Your task to perform on an android device: Open Chrome and go to settings Image 0: 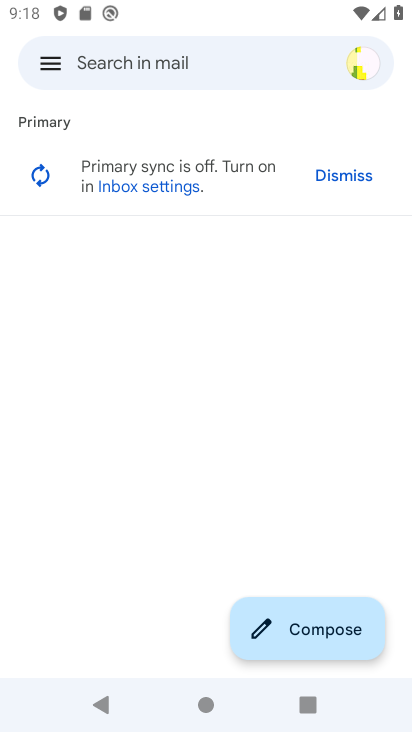
Step 0: press home button
Your task to perform on an android device: Open Chrome and go to settings Image 1: 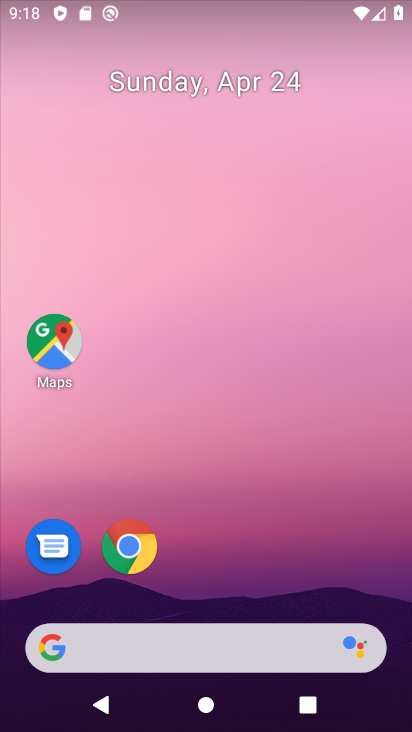
Step 1: click (131, 570)
Your task to perform on an android device: Open Chrome and go to settings Image 2: 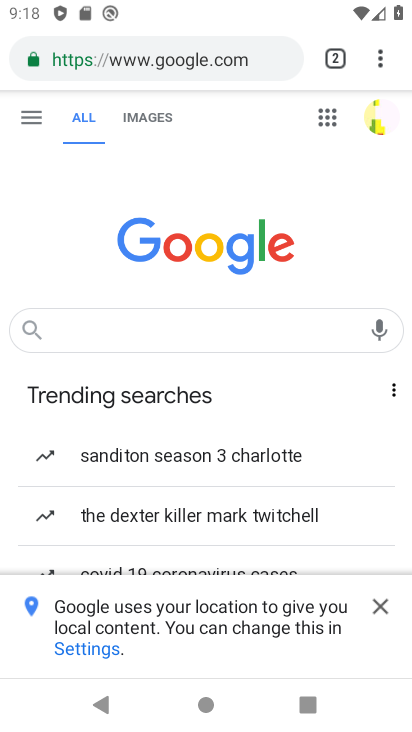
Step 2: click (372, 73)
Your task to perform on an android device: Open Chrome and go to settings Image 3: 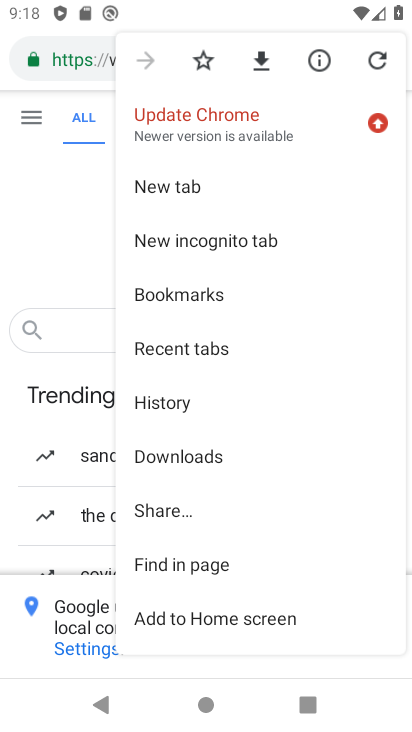
Step 3: drag from (246, 554) to (280, 169)
Your task to perform on an android device: Open Chrome and go to settings Image 4: 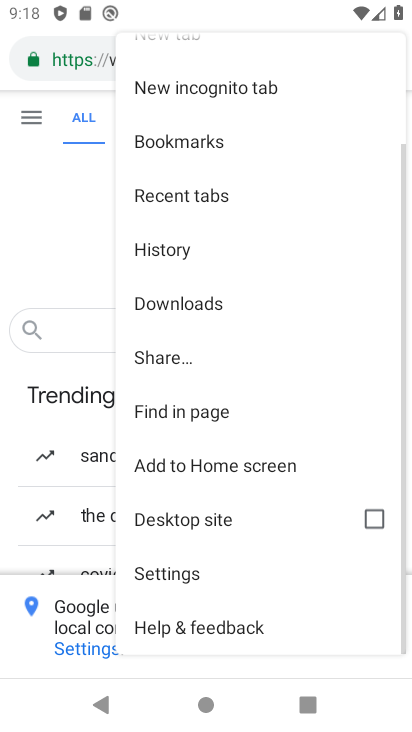
Step 4: click (228, 580)
Your task to perform on an android device: Open Chrome and go to settings Image 5: 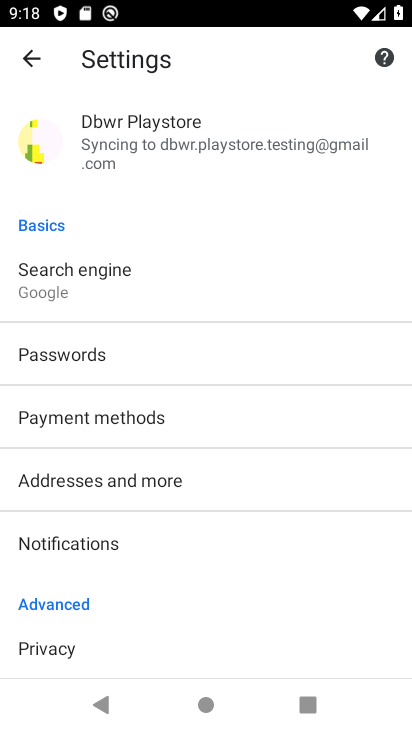
Step 5: task complete